Your task to perform on an android device: turn off notifications in google photos Image 0: 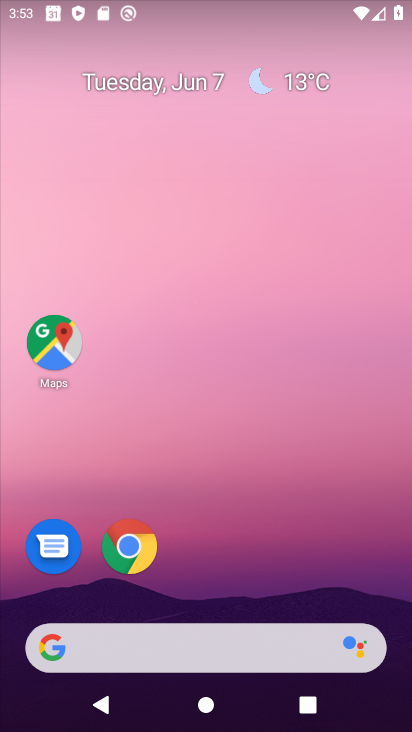
Step 0: drag from (247, 601) to (255, 66)
Your task to perform on an android device: turn off notifications in google photos Image 1: 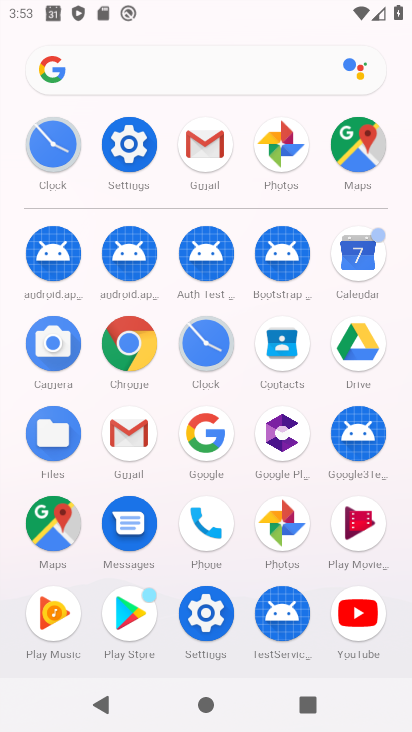
Step 1: click (298, 163)
Your task to perform on an android device: turn off notifications in google photos Image 2: 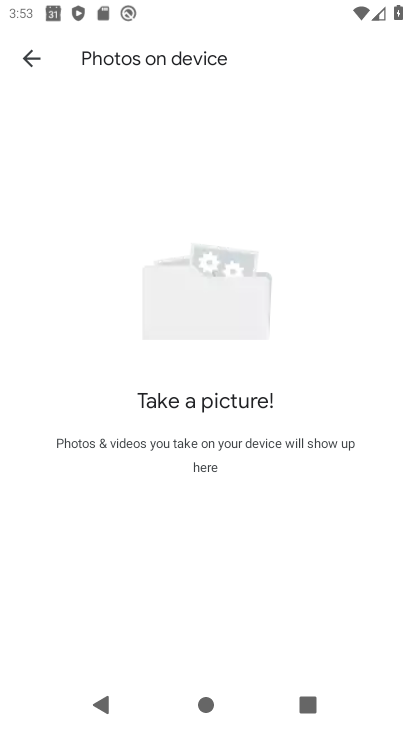
Step 2: click (41, 53)
Your task to perform on an android device: turn off notifications in google photos Image 3: 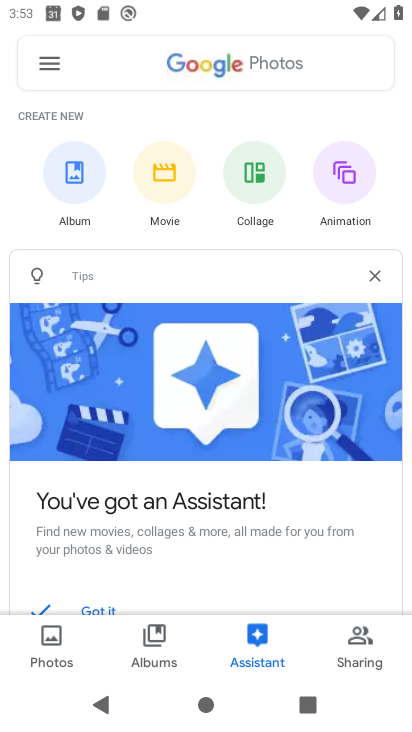
Step 3: click (42, 59)
Your task to perform on an android device: turn off notifications in google photos Image 4: 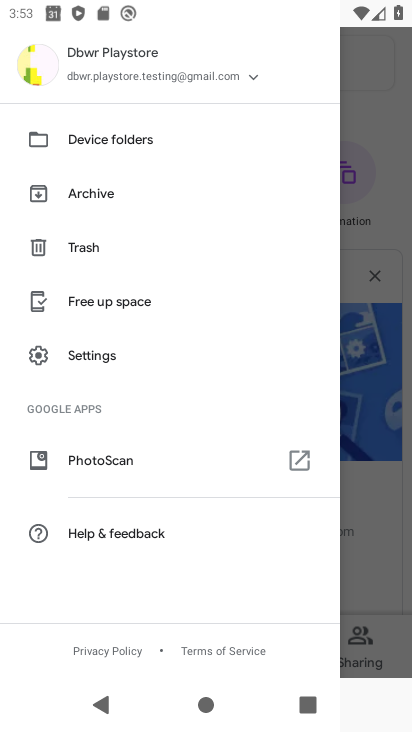
Step 4: click (97, 357)
Your task to perform on an android device: turn off notifications in google photos Image 5: 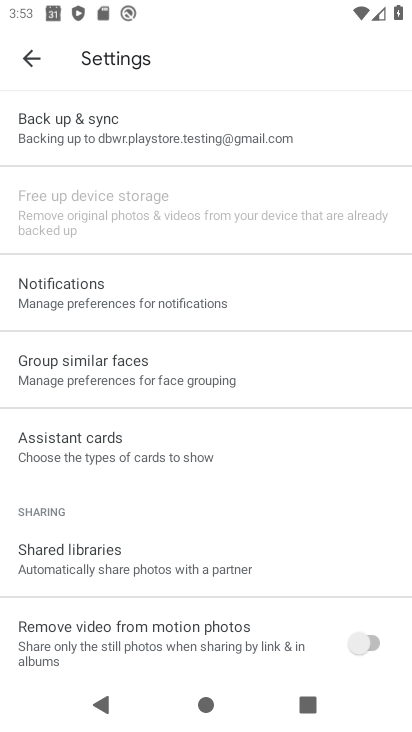
Step 5: click (130, 306)
Your task to perform on an android device: turn off notifications in google photos Image 6: 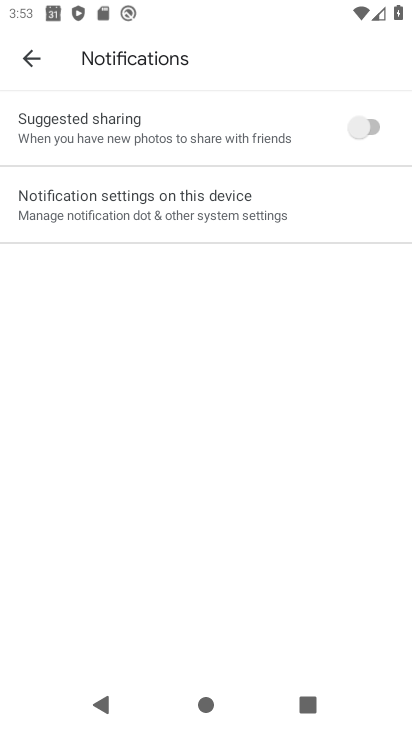
Step 6: click (247, 231)
Your task to perform on an android device: turn off notifications in google photos Image 7: 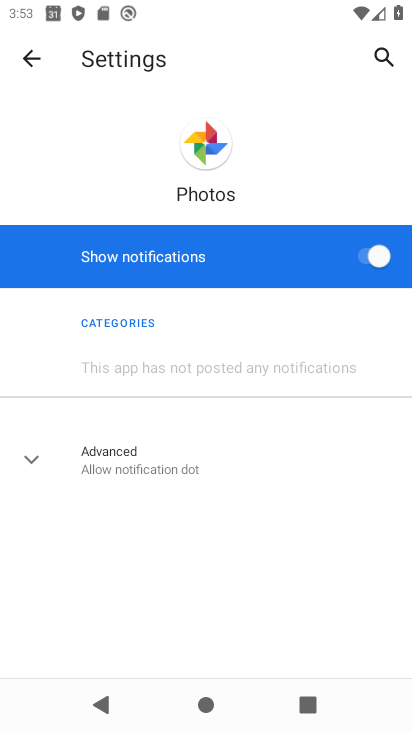
Step 7: click (381, 256)
Your task to perform on an android device: turn off notifications in google photos Image 8: 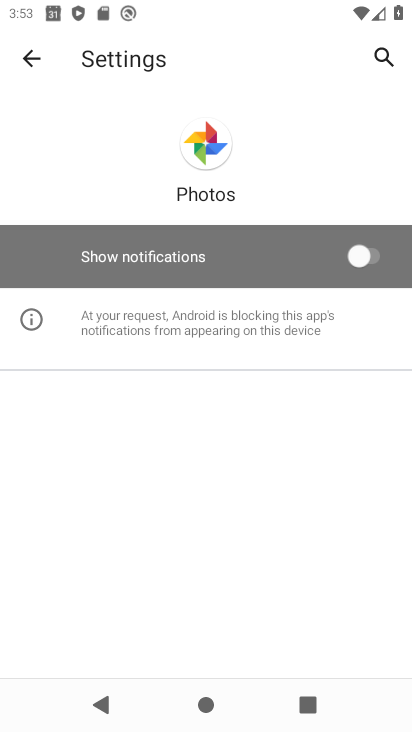
Step 8: task complete